Your task to perform on an android device: turn on improve location accuracy Image 0: 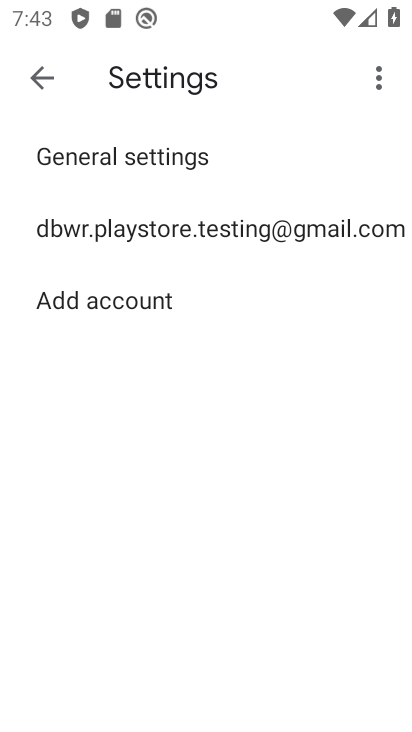
Step 0: press home button
Your task to perform on an android device: turn on improve location accuracy Image 1: 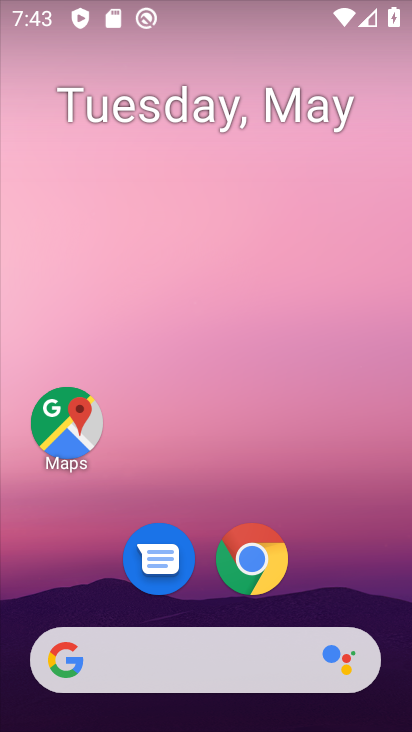
Step 1: drag from (390, 619) to (380, 177)
Your task to perform on an android device: turn on improve location accuracy Image 2: 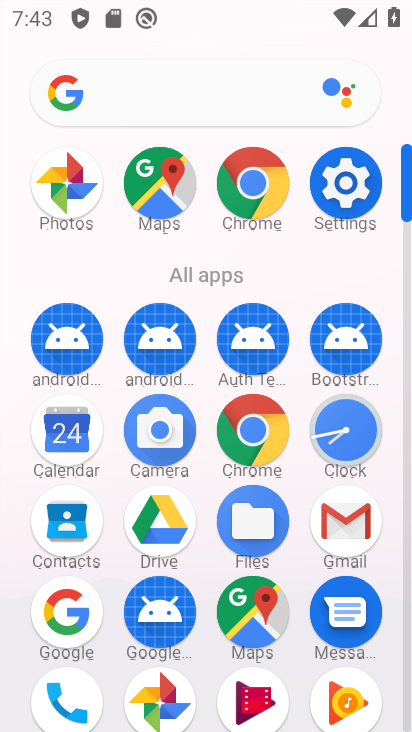
Step 2: click (353, 207)
Your task to perform on an android device: turn on improve location accuracy Image 3: 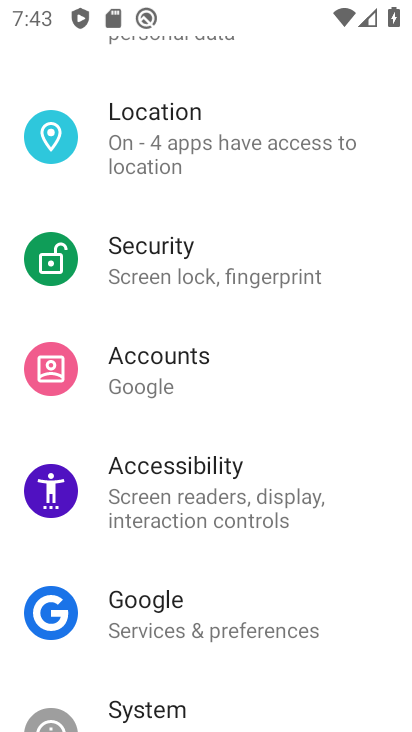
Step 3: drag from (369, 269) to (383, 363)
Your task to perform on an android device: turn on improve location accuracy Image 4: 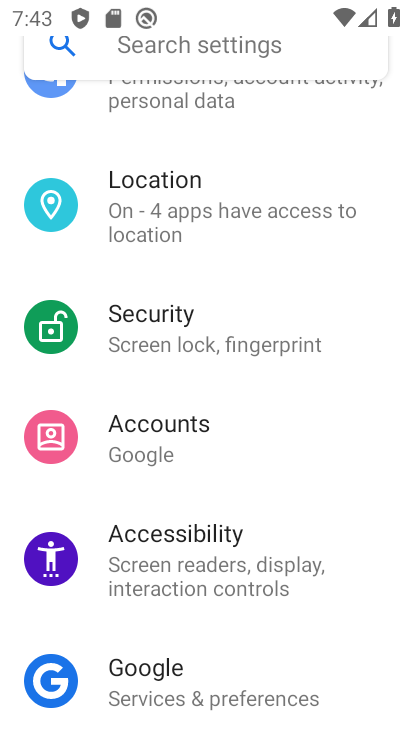
Step 4: drag from (365, 147) to (368, 334)
Your task to perform on an android device: turn on improve location accuracy Image 5: 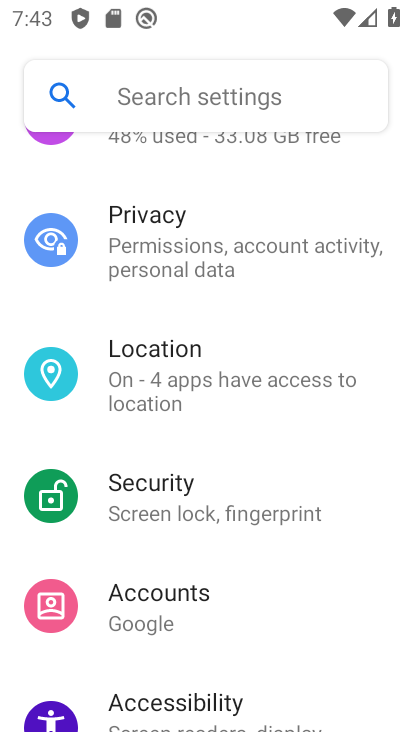
Step 5: drag from (378, 206) to (380, 330)
Your task to perform on an android device: turn on improve location accuracy Image 6: 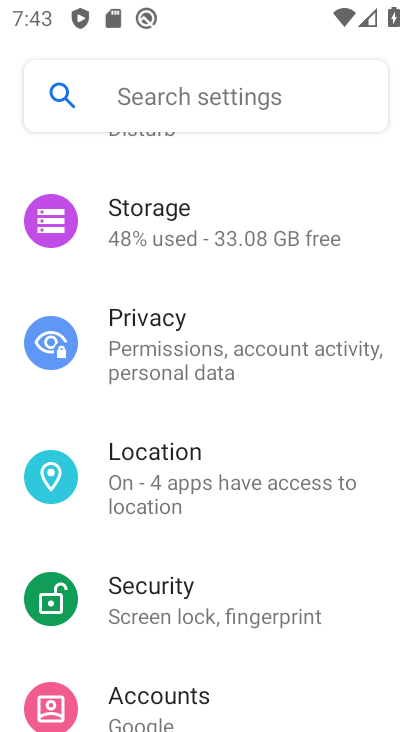
Step 6: drag from (369, 188) to (362, 387)
Your task to perform on an android device: turn on improve location accuracy Image 7: 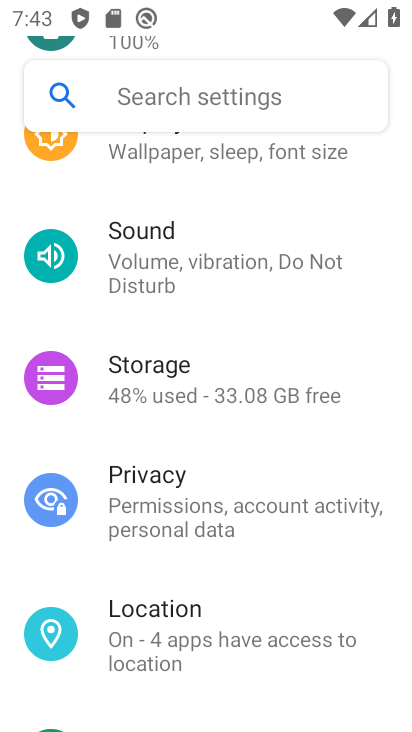
Step 7: drag from (377, 172) to (380, 349)
Your task to perform on an android device: turn on improve location accuracy Image 8: 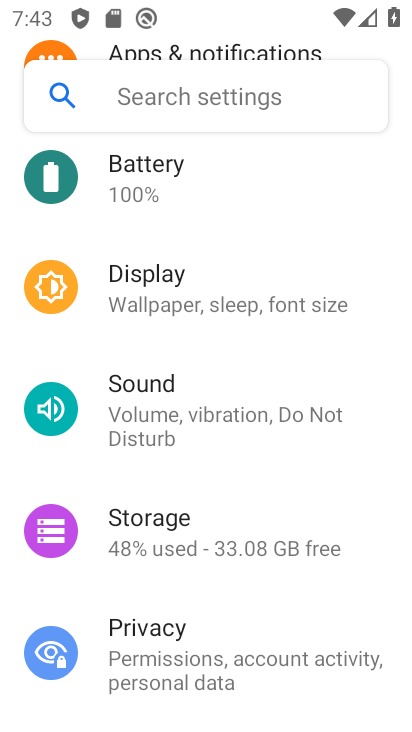
Step 8: drag from (368, 182) to (371, 360)
Your task to perform on an android device: turn on improve location accuracy Image 9: 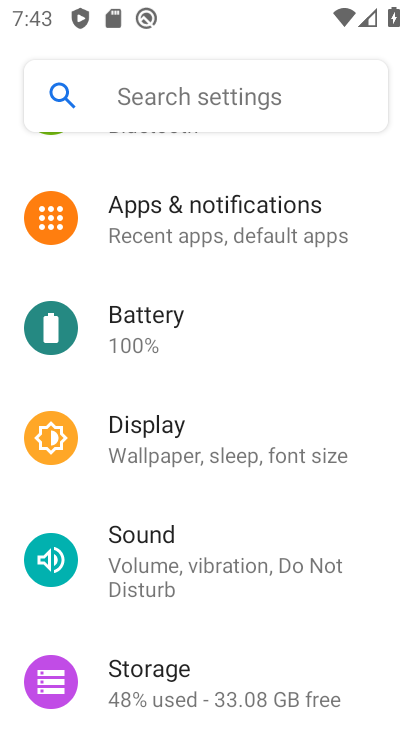
Step 9: drag from (372, 159) to (367, 372)
Your task to perform on an android device: turn on improve location accuracy Image 10: 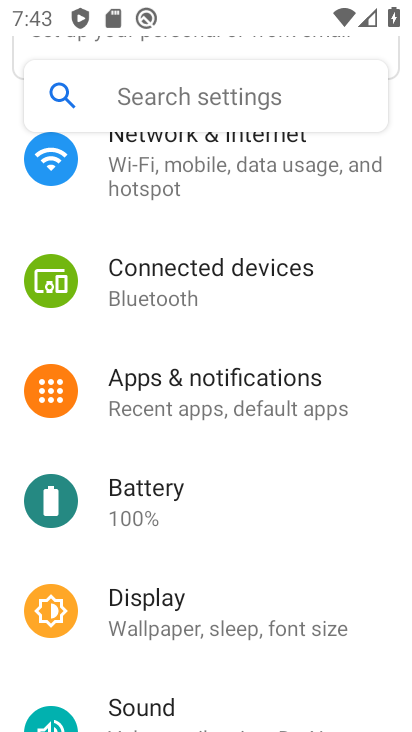
Step 10: drag from (367, 384) to (372, 220)
Your task to perform on an android device: turn on improve location accuracy Image 11: 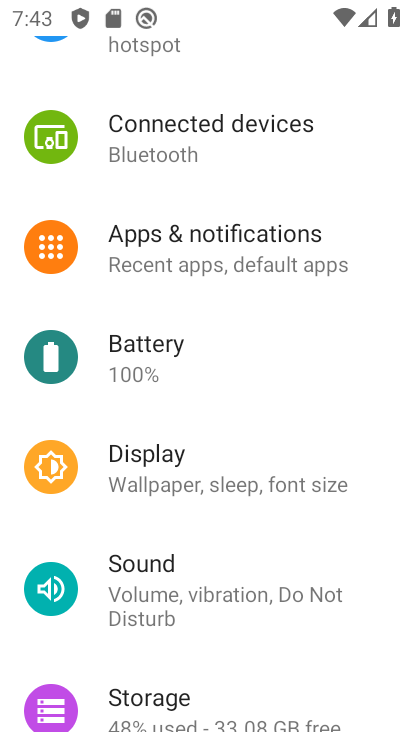
Step 11: drag from (352, 431) to (361, 214)
Your task to perform on an android device: turn on improve location accuracy Image 12: 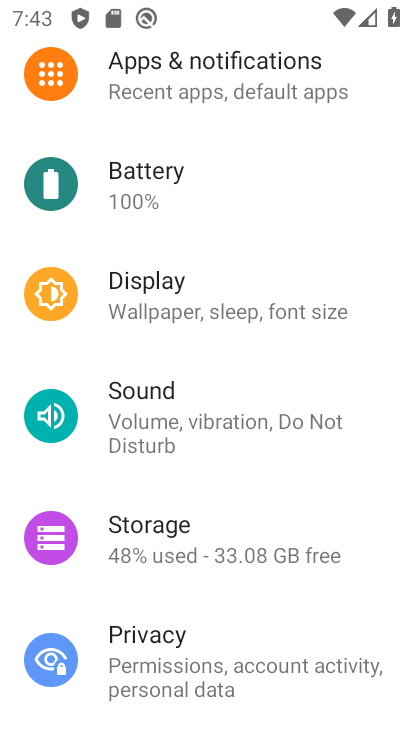
Step 12: drag from (361, 448) to (374, 261)
Your task to perform on an android device: turn on improve location accuracy Image 13: 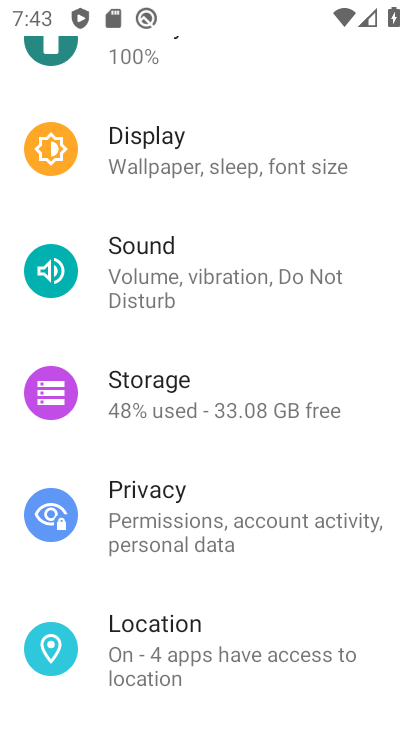
Step 13: drag from (362, 473) to (363, 306)
Your task to perform on an android device: turn on improve location accuracy Image 14: 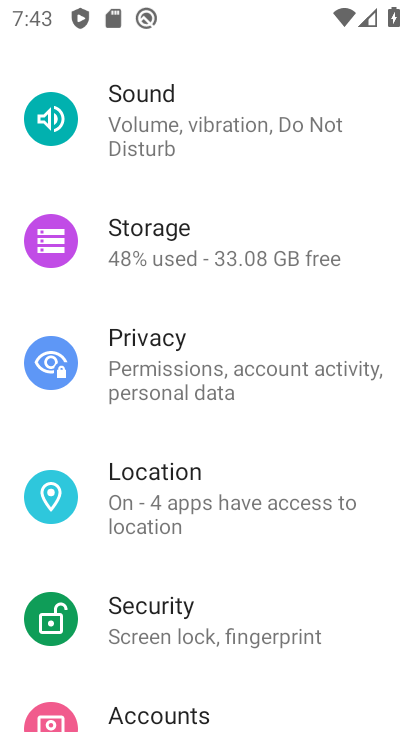
Step 14: drag from (354, 581) to (374, 374)
Your task to perform on an android device: turn on improve location accuracy Image 15: 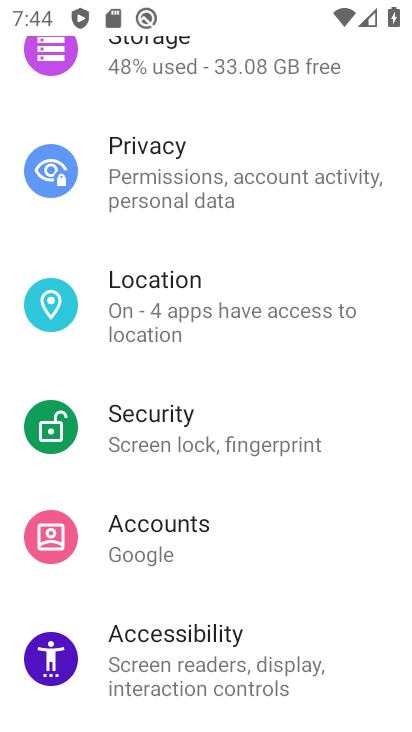
Step 15: click (248, 309)
Your task to perform on an android device: turn on improve location accuracy Image 16: 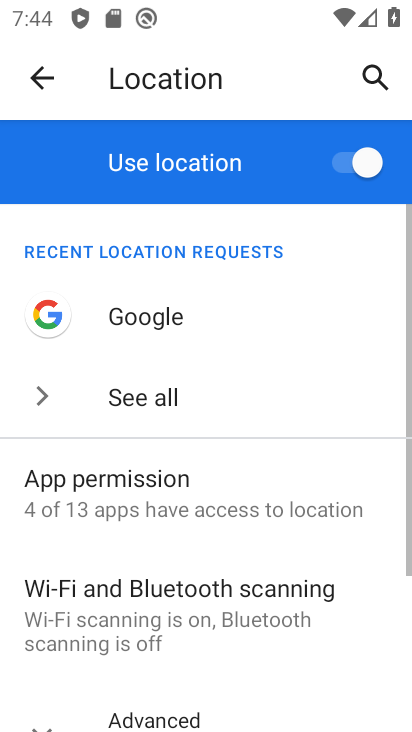
Step 16: drag from (367, 639) to (375, 406)
Your task to perform on an android device: turn on improve location accuracy Image 17: 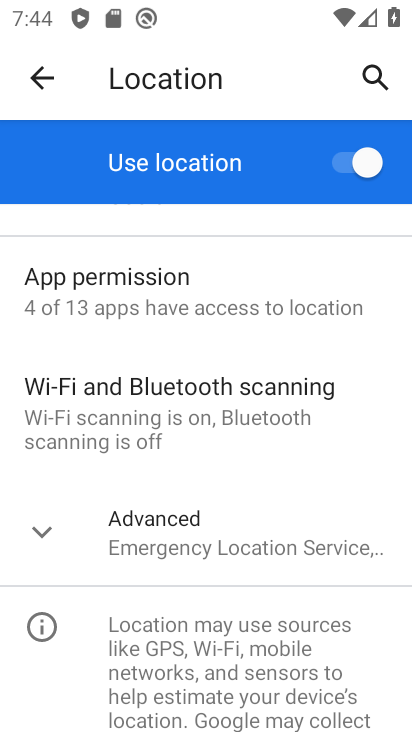
Step 17: click (354, 554)
Your task to perform on an android device: turn on improve location accuracy Image 18: 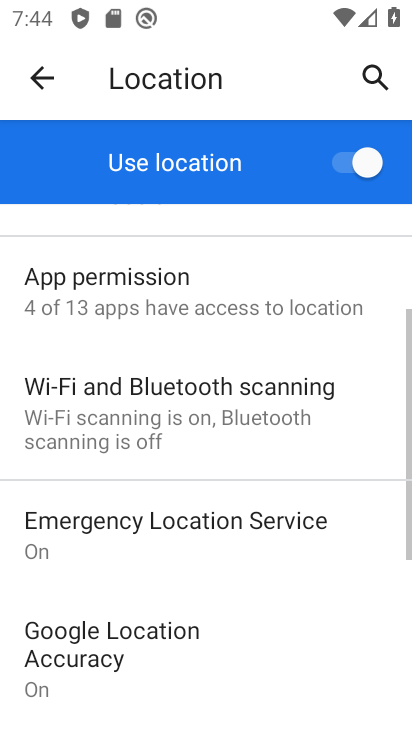
Step 18: drag from (347, 603) to (364, 432)
Your task to perform on an android device: turn on improve location accuracy Image 19: 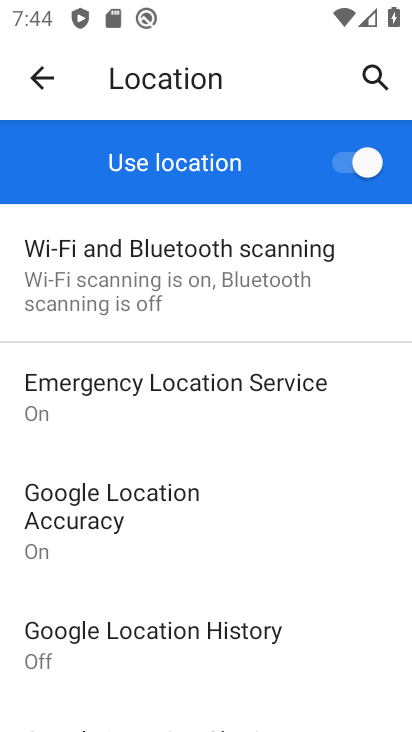
Step 19: drag from (353, 615) to (361, 480)
Your task to perform on an android device: turn on improve location accuracy Image 20: 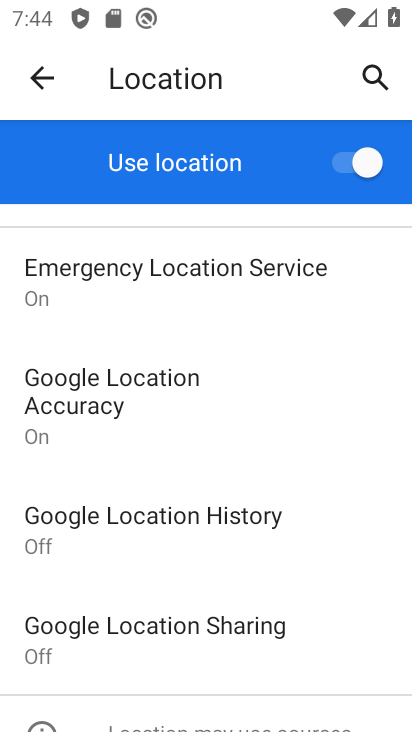
Step 20: click (168, 411)
Your task to perform on an android device: turn on improve location accuracy Image 21: 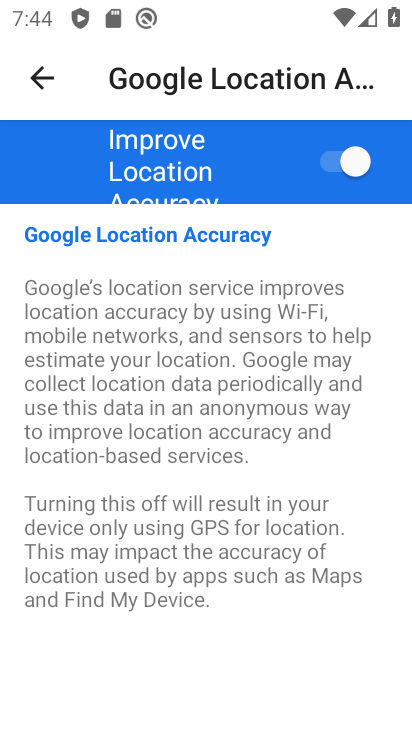
Step 21: task complete